Your task to perform on an android device: What is the speed of a train? Image 0: 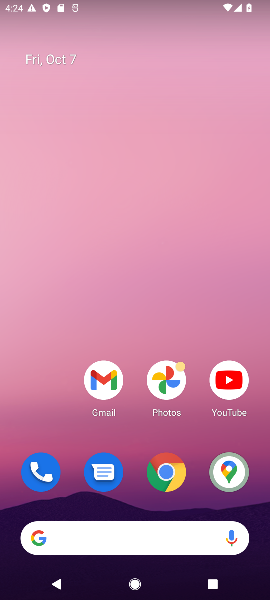
Step 0: click (172, 471)
Your task to perform on an android device: What is the speed of a train? Image 1: 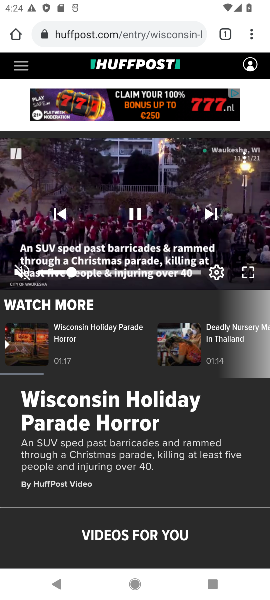
Step 1: click (118, 35)
Your task to perform on an android device: What is the speed of a train? Image 2: 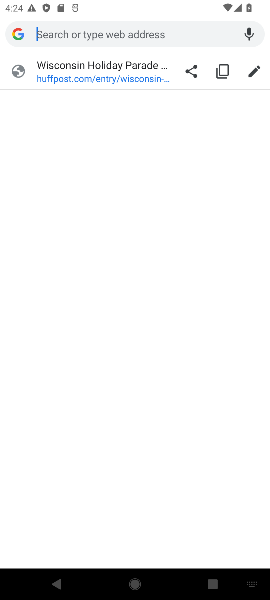
Step 2: type "speed of train"
Your task to perform on an android device: What is the speed of a train? Image 3: 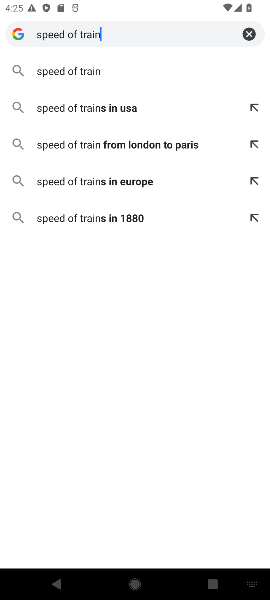
Step 3: click (155, 67)
Your task to perform on an android device: What is the speed of a train? Image 4: 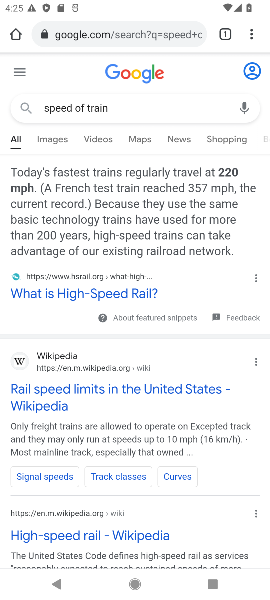
Step 4: task complete